Your task to perform on an android device: toggle notifications settings in the gmail app Image 0: 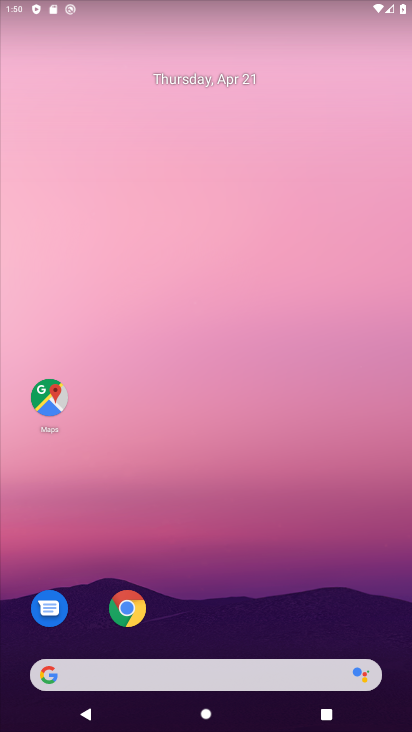
Step 0: drag from (216, 635) to (242, 261)
Your task to perform on an android device: toggle notifications settings in the gmail app Image 1: 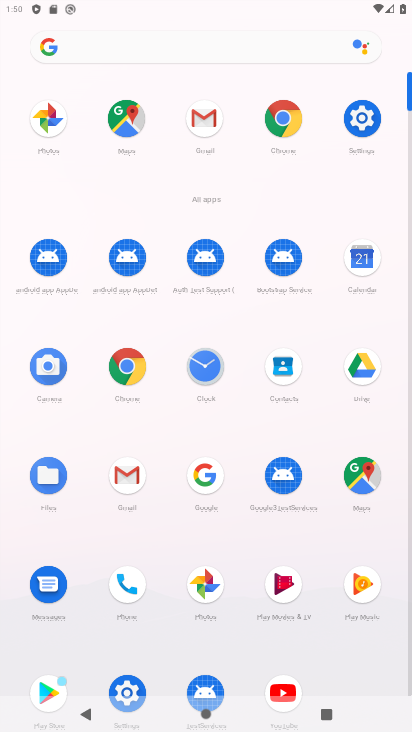
Step 1: click (133, 471)
Your task to perform on an android device: toggle notifications settings in the gmail app Image 2: 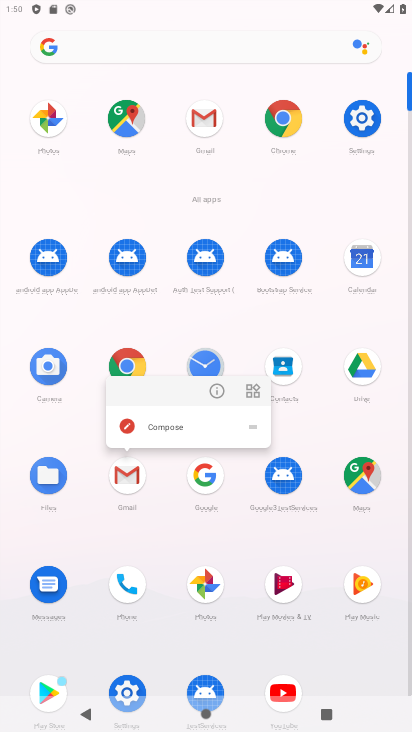
Step 2: click (130, 490)
Your task to perform on an android device: toggle notifications settings in the gmail app Image 3: 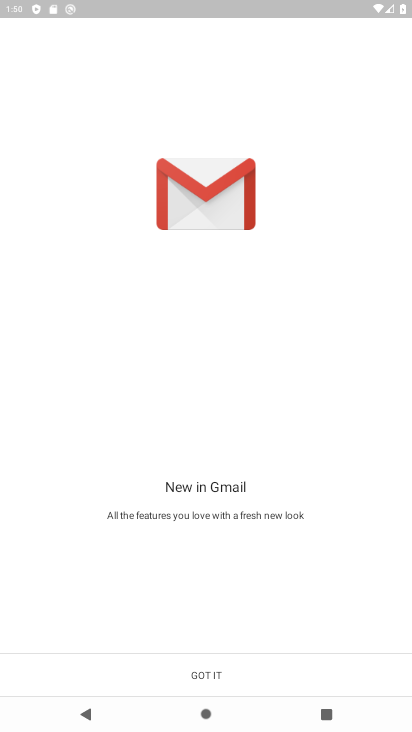
Step 3: click (280, 673)
Your task to perform on an android device: toggle notifications settings in the gmail app Image 4: 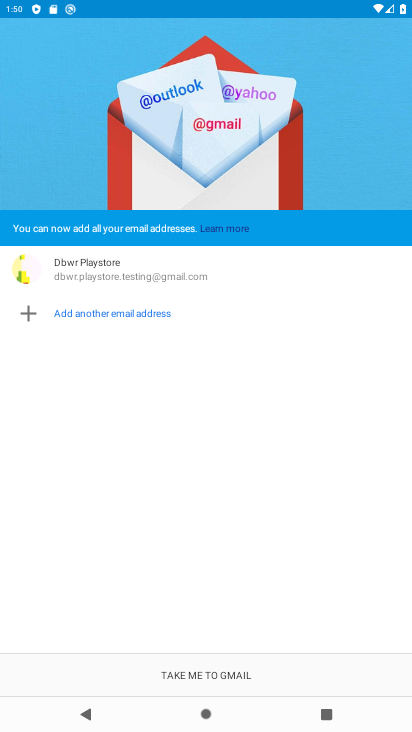
Step 4: click (281, 671)
Your task to perform on an android device: toggle notifications settings in the gmail app Image 5: 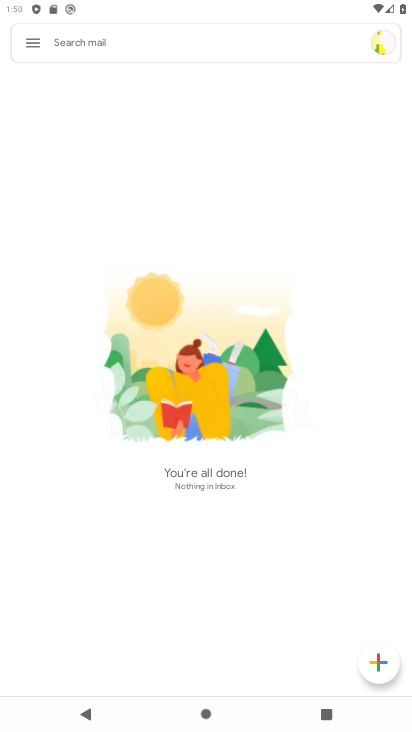
Step 5: click (35, 44)
Your task to perform on an android device: toggle notifications settings in the gmail app Image 6: 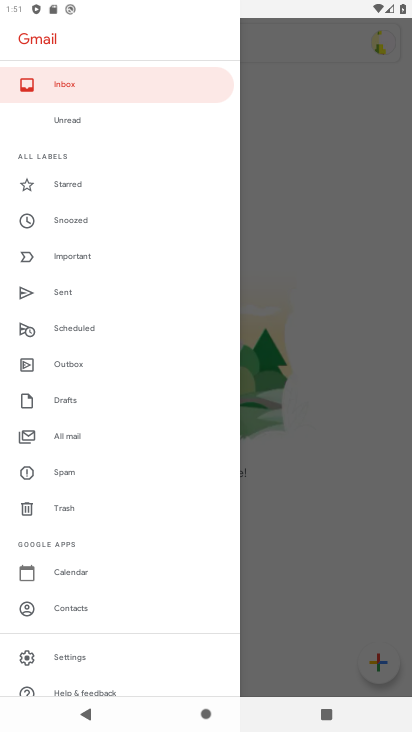
Step 6: drag from (110, 693) to (127, 253)
Your task to perform on an android device: toggle notifications settings in the gmail app Image 7: 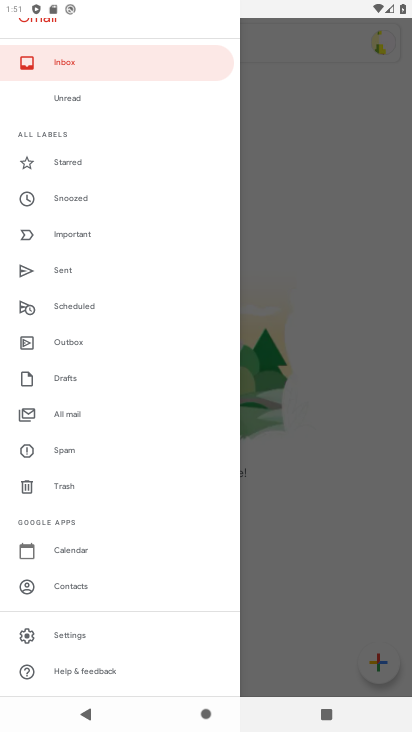
Step 7: click (70, 630)
Your task to perform on an android device: toggle notifications settings in the gmail app Image 8: 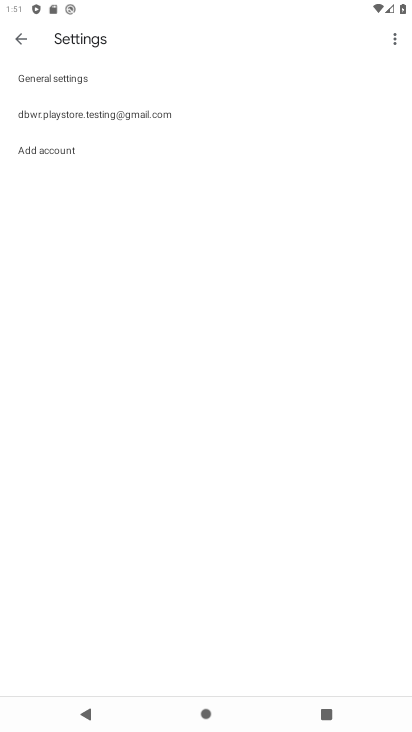
Step 8: click (161, 120)
Your task to perform on an android device: toggle notifications settings in the gmail app Image 9: 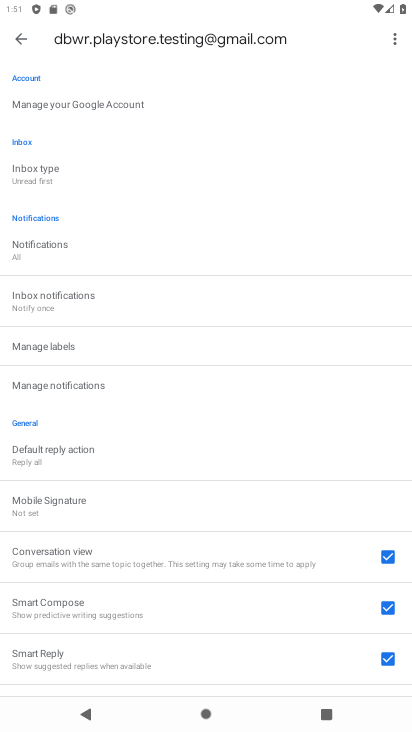
Step 9: click (105, 393)
Your task to perform on an android device: toggle notifications settings in the gmail app Image 10: 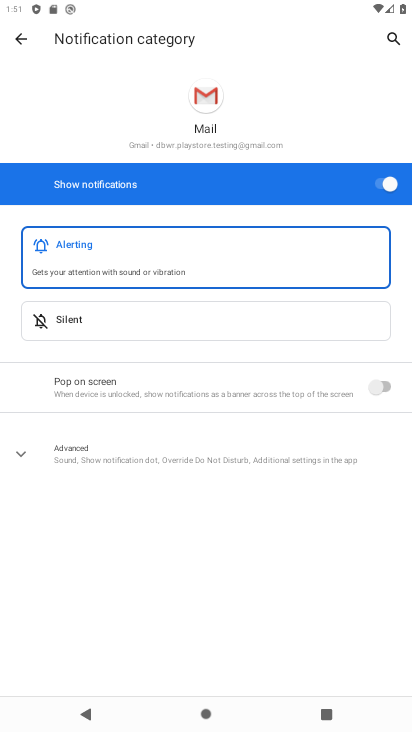
Step 10: click (376, 189)
Your task to perform on an android device: toggle notifications settings in the gmail app Image 11: 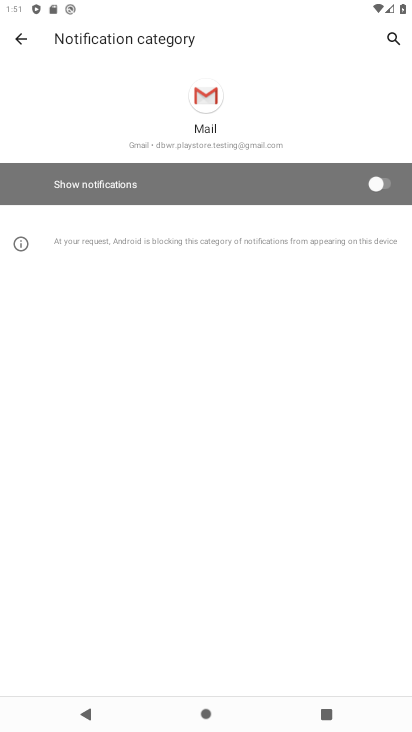
Step 11: task complete